Your task to perform on an android device: open wifi settings Image 0: 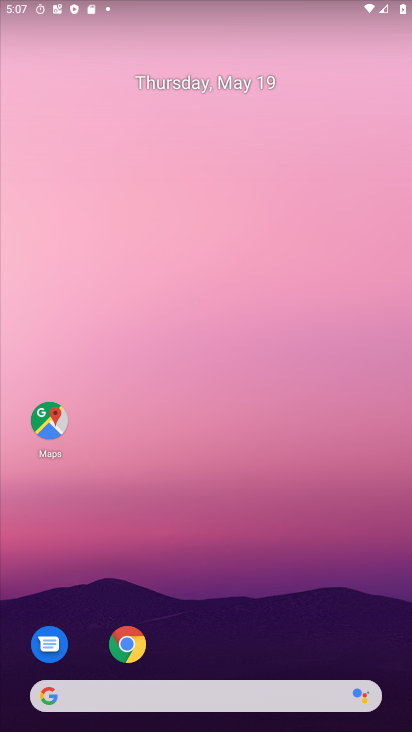
Step 0: drag from (187, 676) to (210, 257)
Your task to perform on an android device: open wifi settings Image 1: 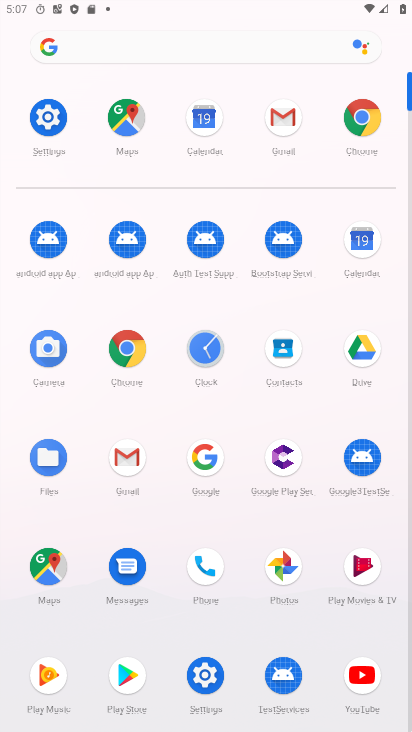
Step 1: click (51, 114)
Your task to perform on an android device: open wifi settings Image 2: 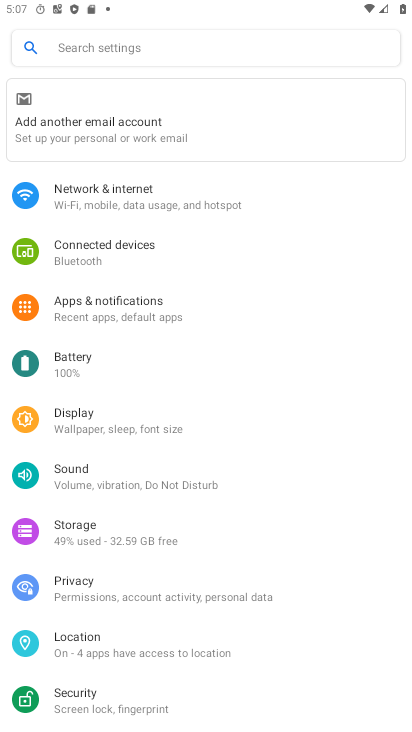
Step 2: click (119, 194)
Your task to perform on an android device: open wifi settings Image 3: 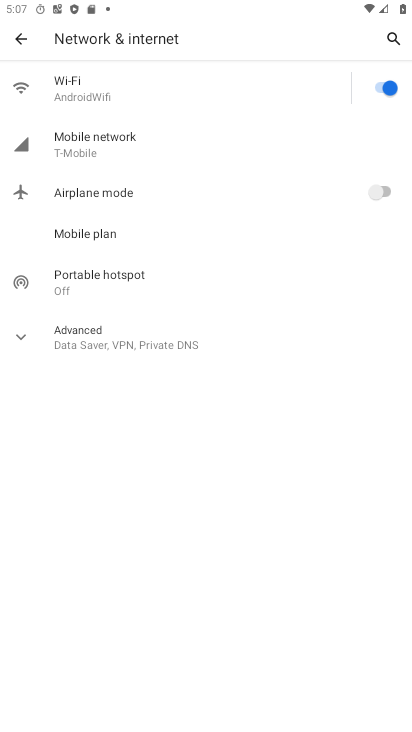
Step 3: click (77, 83)
Your task to perform on an android device: open wifi settings Image 4: 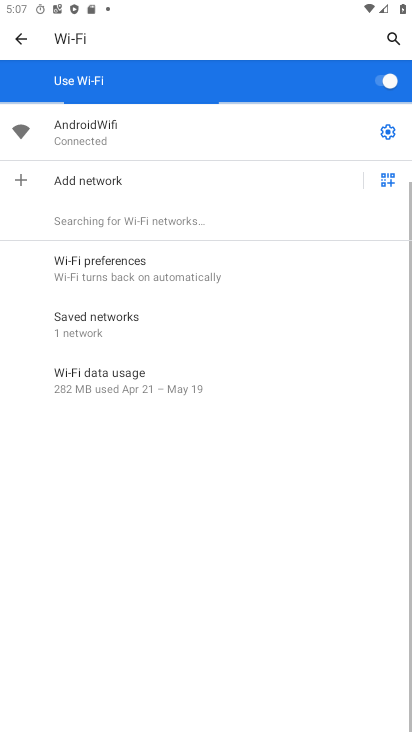
Step 4: click (93, 132)
Your task to perform on an android device: open wifi settings Image 5: 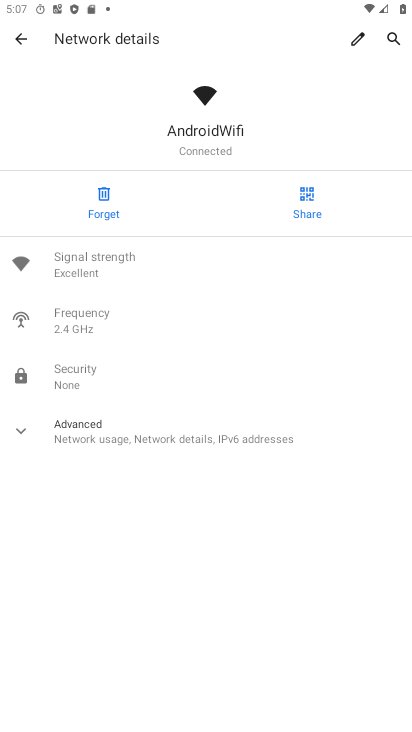
Step 5: click (25, 430)
Your task to perform on an android device: open wifi settings Image 6: 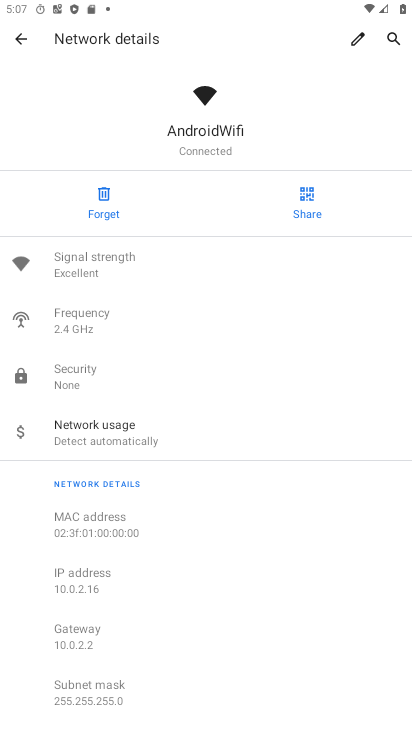
Step 6: task complete